Your task to perform on an android device: turn off airplane mode Image 0: 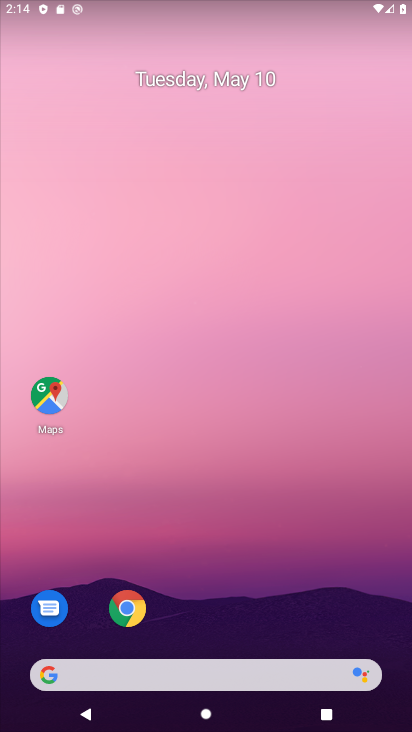
Step 0: drag from (393, 642) to (344, 68)
Your task to perform on an android device: turn off airplane mode Image 1: 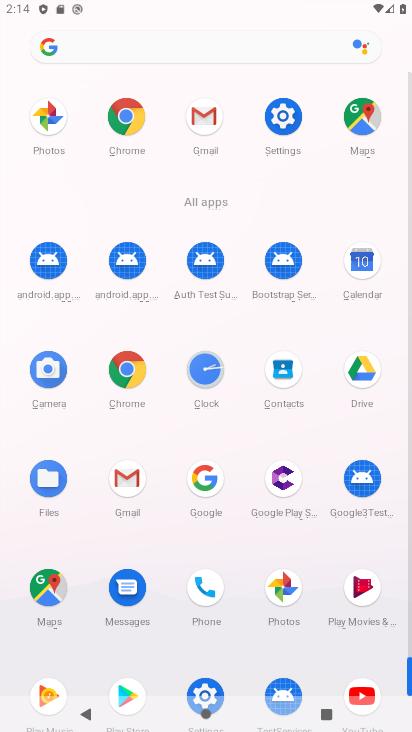
Step 1: click (410, 649)
Your task to perform on an android device: turn off airplane mode Image 2: 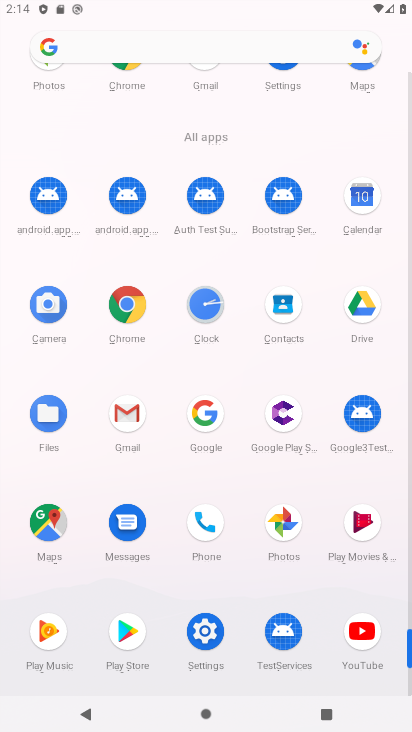
Step 2: click (206, 631)
Your task to perform on an android device: turn off airplane mode Image 3: 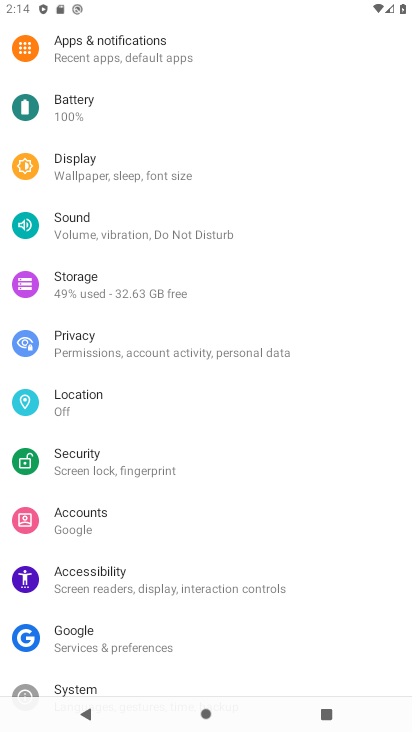
Step 3: drag from (328, 62) to (282, 385)
Your task to perform on an android device: turn off airplane mode Image 4: 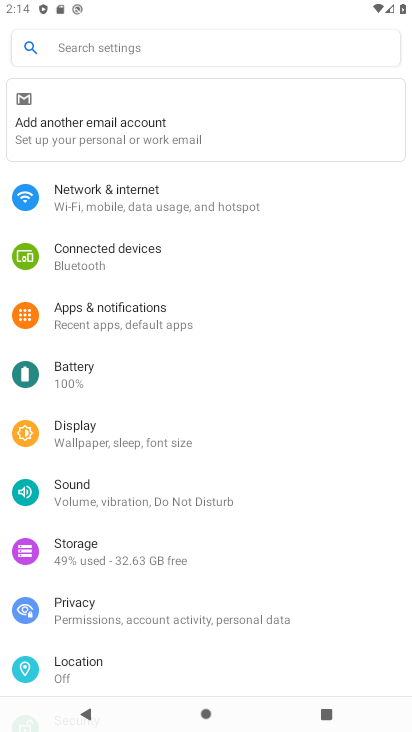
Step 4: click (96, 184)
Your task to perform on an android device: turn off airplane mode Image 5: 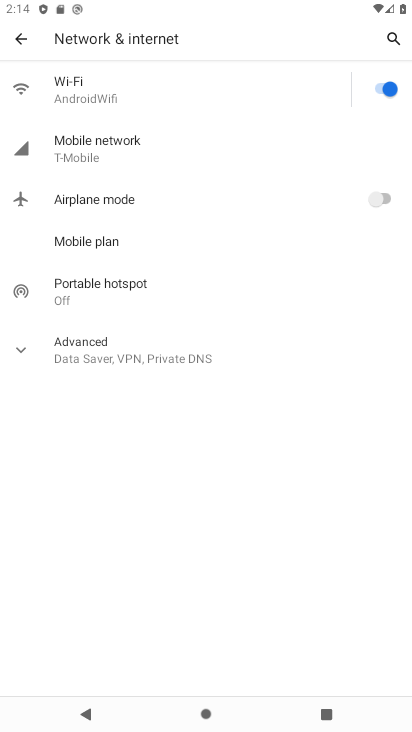
Step 5: task complete